Your task to perform on an android device: find snoozed emails in the gmail app Image 0: 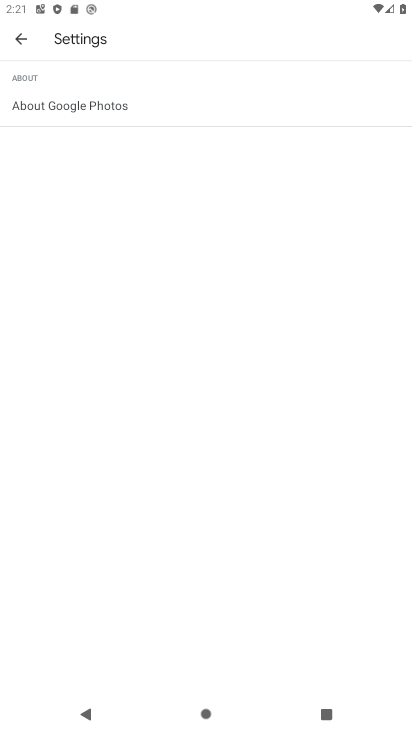
Step 0: press home button
Your task to perform on an android device: find snoozed emails in the gmail app Image 1: 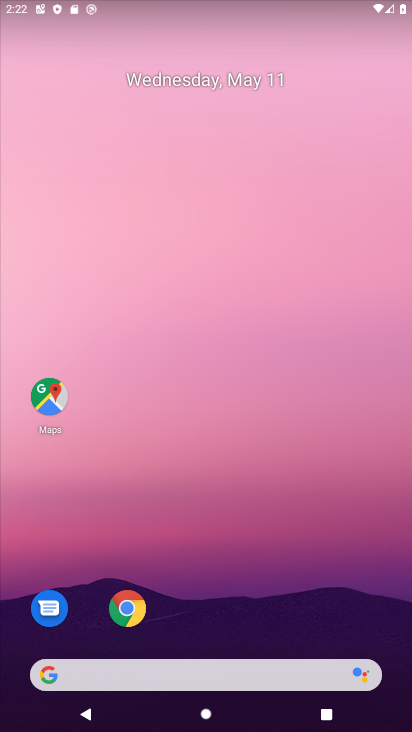
Step 1: drag from (258, 621) to (270, 157)
Your task to perform on an android device: find snoozed emails in the gmail app Image 2: 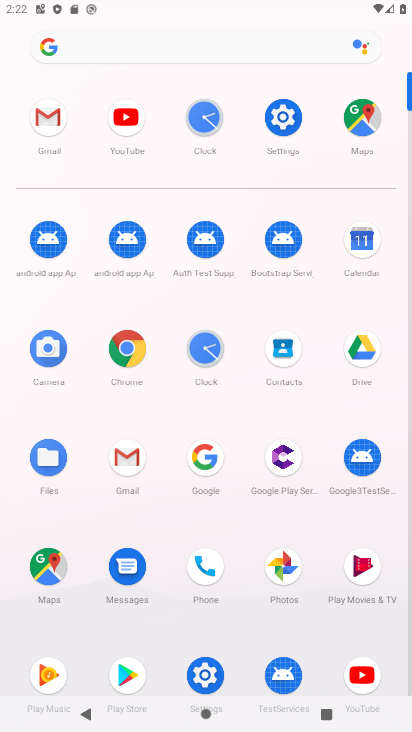
Step 2: click (132, 460)
Your task to perform on an android device: find snoozed emails in the gmail app Image 3: 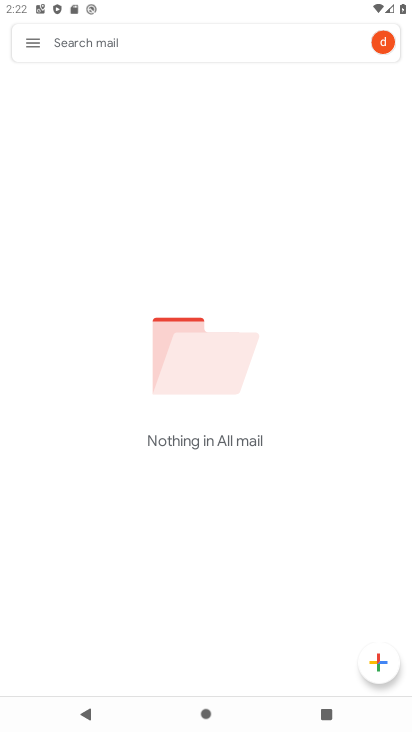
Step 3: click (34, 41)
Your task to perform on an android device: find snoozed emails in the gmail app Image 4: 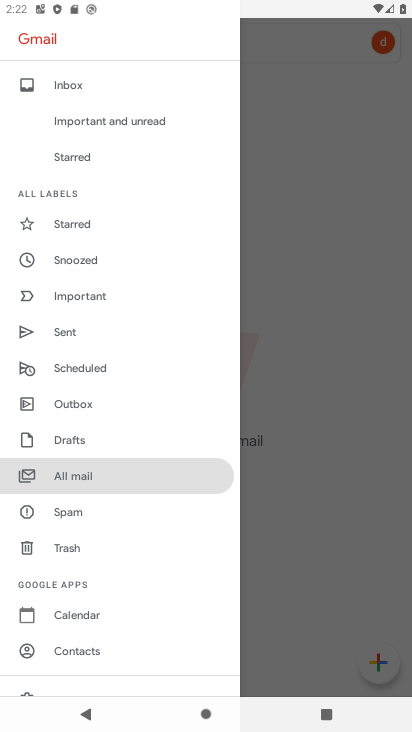
Step 4: click (52, 254)
Your task to perform on an android device: find snoozed emails in the gmail app Image 5: 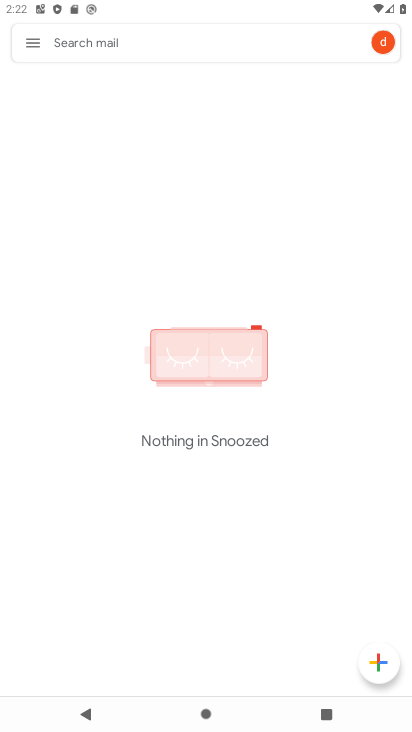
Step 5: task complete